Your task to perform on an android device: Search for pizza restaurants on Maps Image 0: 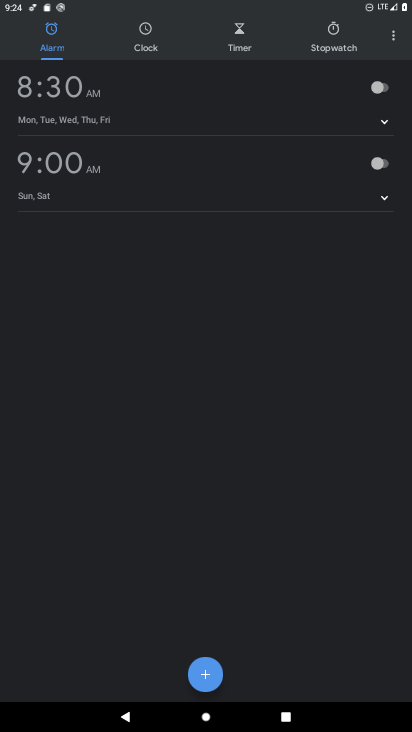
Step 0: press home button
Your task to perform on an android device: Search for pizza restaurants on Maps Image 1: 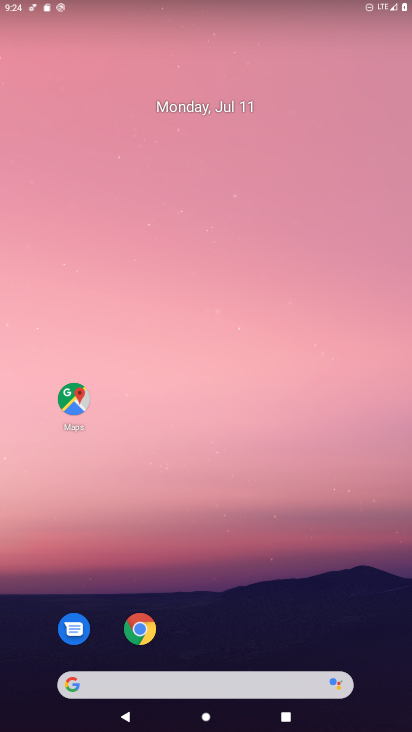
Step 1: click (67, 386)
Your task to perform on an android device: Search for pizza restaurants on Maps Image 2: 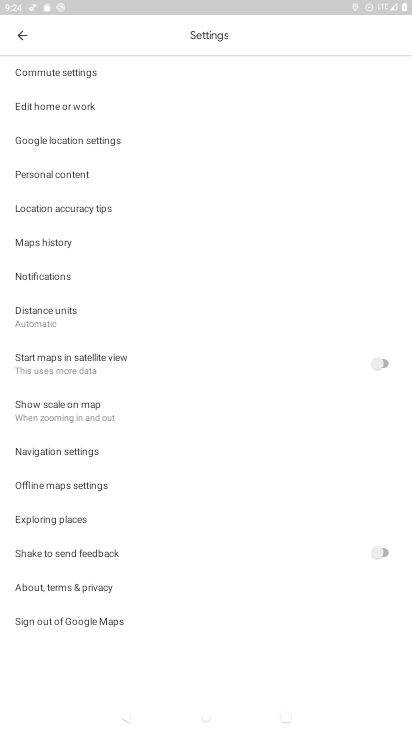
Step 2: click (15, 31)
Your task to perform on an android device: Search for pizza restaurants on Maps Image 3: 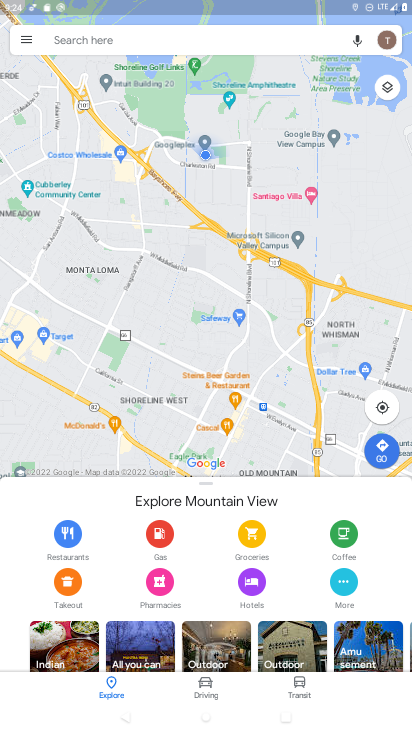
Step 3: click (158, 37)
Your task to perform on an android device: Search for pizza restaurants on Maps Image 4: 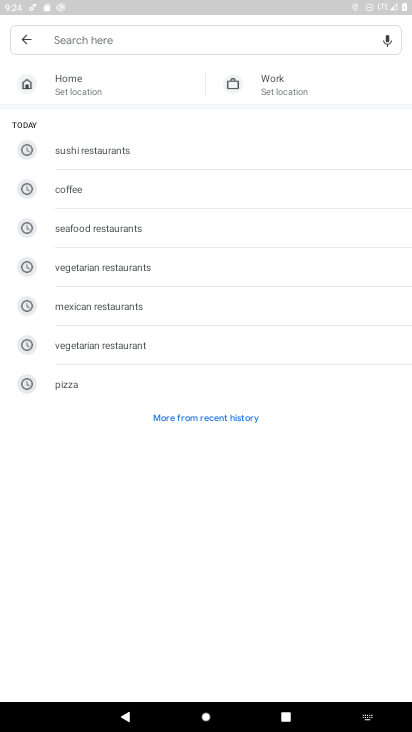
Step 4: click (110, 396)
Your task to perform on an android device: Search for pizza restaurants on Maps Image 5: 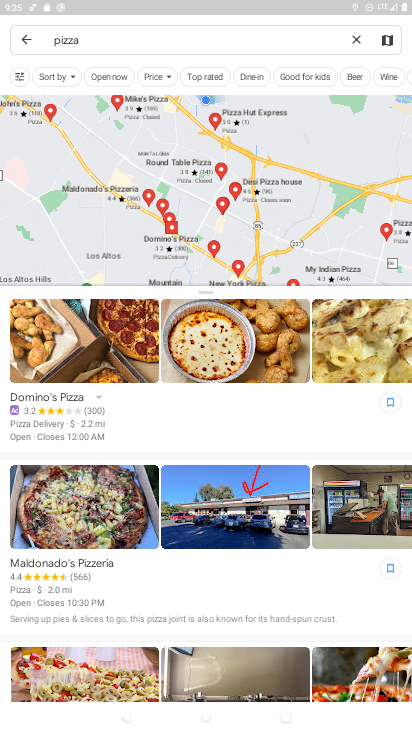
Step 5: task complete